Your task to perform on an android device: toggle airplane mode Image 0: 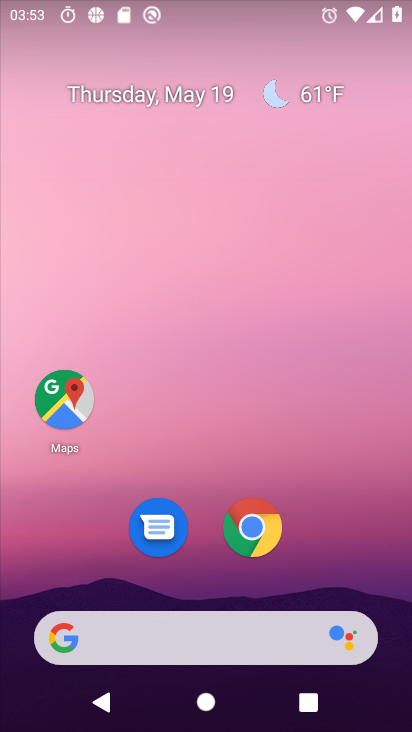
Step 0: drag from (364, 8) to (344, 464)
Your task to perform on an android device: toggle airplane mode Image 1: 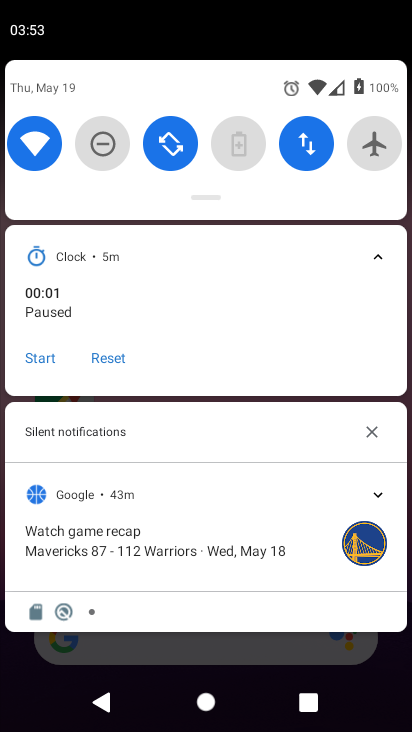
Step 1: click (365, 151)
Your task to perform on an android device: toggle airplane mode Image 2: 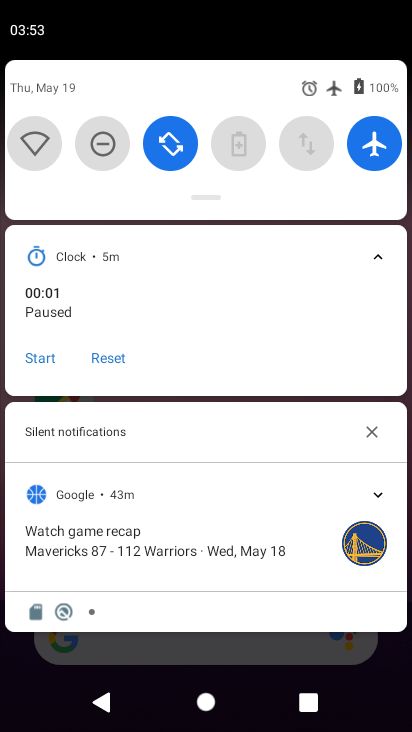
Step 2: task complete